Your task to perform on an android device: search for starred emails in the gmail app Image 0: 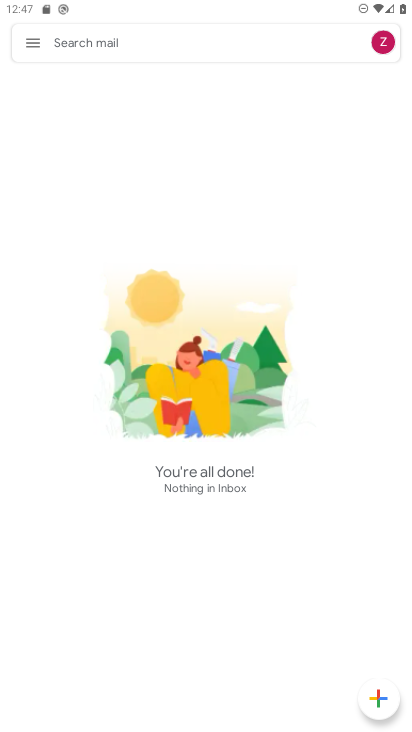
Step 0: click (31, 34)
Your task to perform on an android device: search for starred emails in the gmail app Image 1: 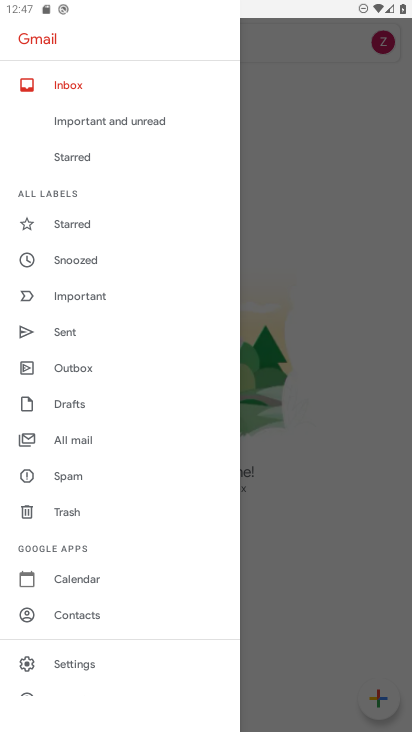
Step 1: click (77, 227)
Your task to perform on an android device: search for starred emails in the gmail app Image 2: 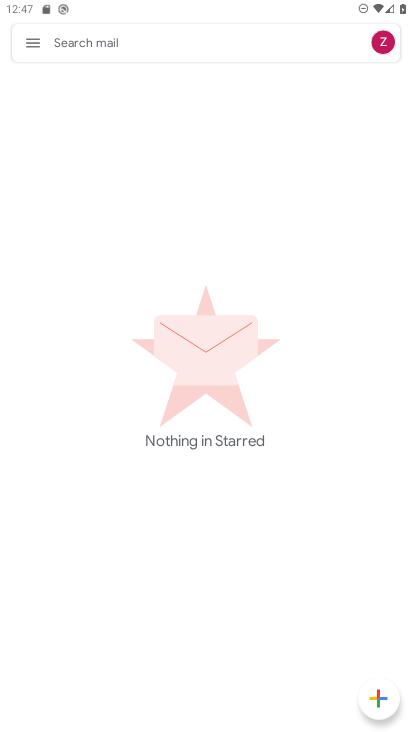
Step 2: task complete